Your task to perform on an android device: Open Chrome and go to the settings page Image 0: 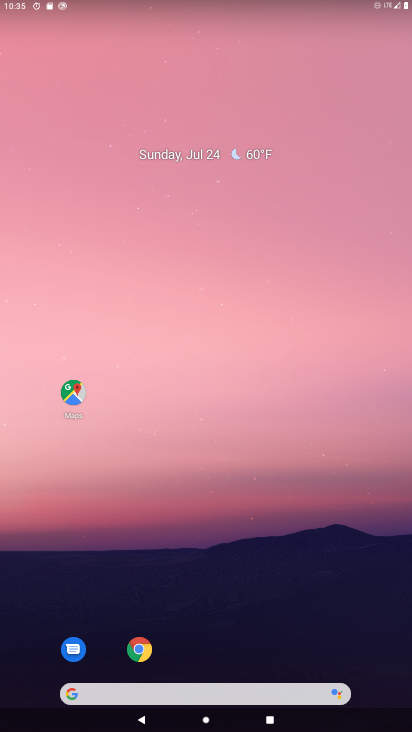
Step 0: drag from (315, 635) to (188, 97)
Your task to perform on an android device: Open Chrome and go to the settings page Image 1: 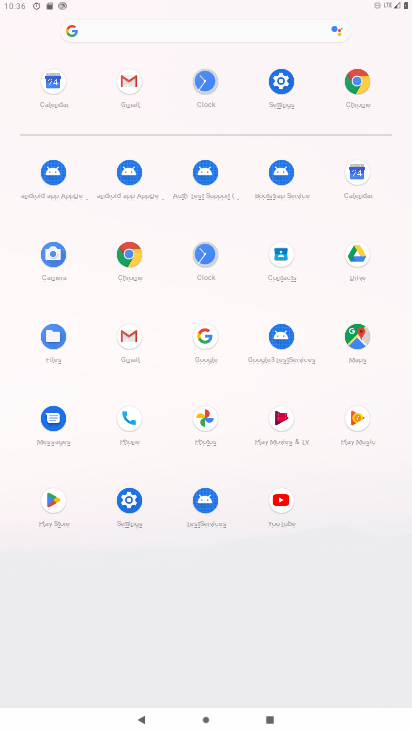
Step 1: click (356, 83)
Your task to perform on an android device: Open Chrome and go to the settings page Image 2: 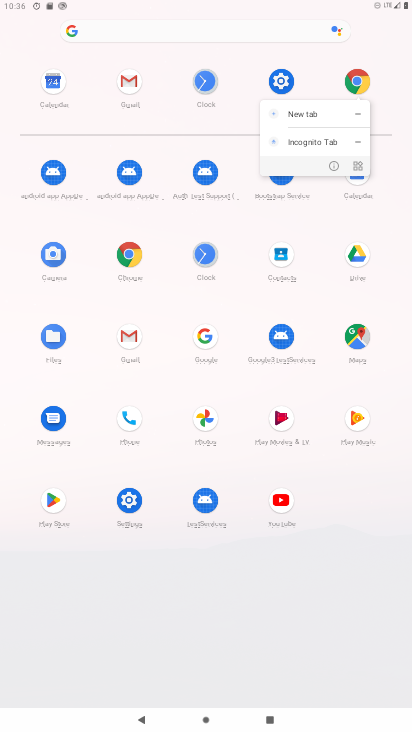
Step 2: click (356, 83)
Your task to perform on an android device: Open Chrome and go to the settings page Image 3: 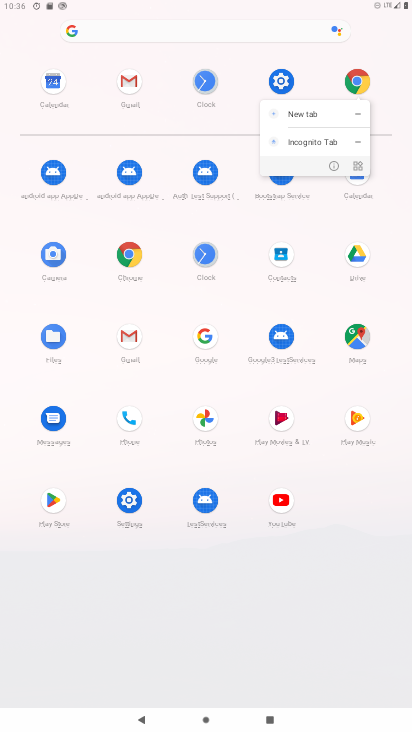
Step 3: click (360, 80)
Your task to perform on an android device: Open Chrome and go to the settings page Image 4: 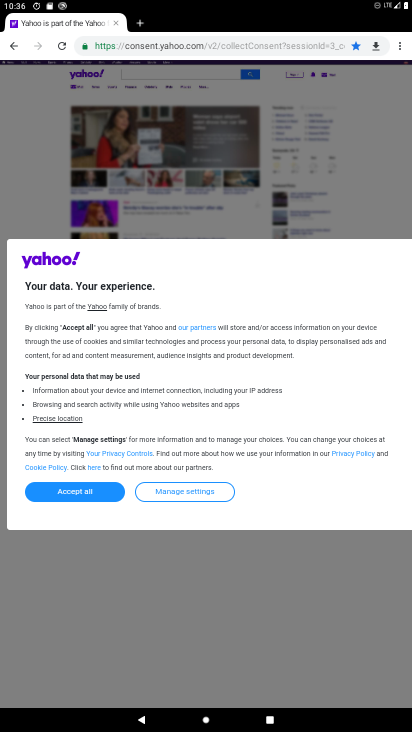
Step 4: task complete